Your task to perform on an android device: Go to eBay Image 0: 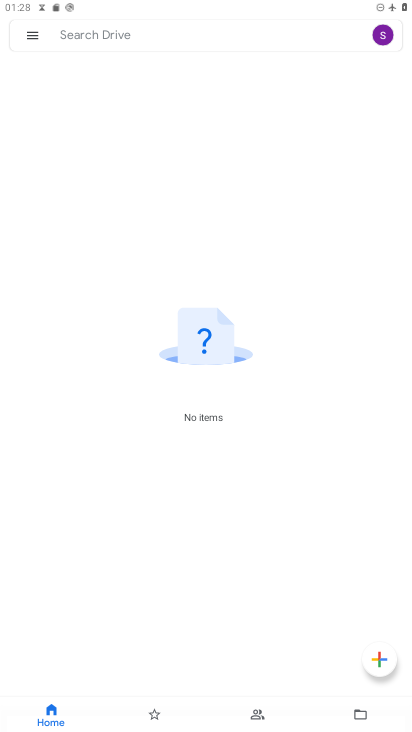
Step 0: press home button
Your task to perform on an android device: Go to eBay Image 1: 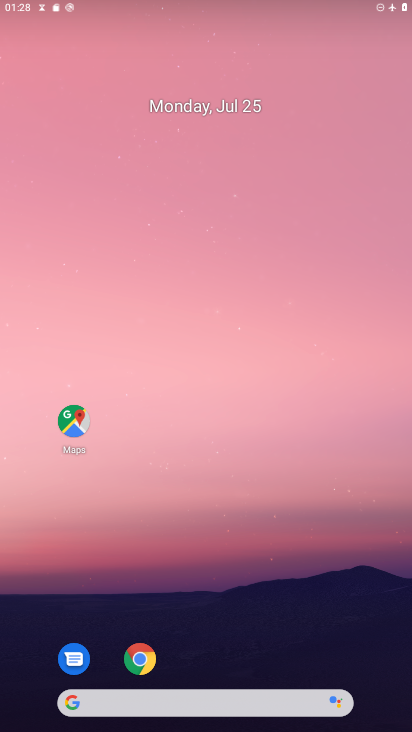
Step 1: drag from (223, 692) to (213, 328)
Your task to perform on an android device: Go to eBay Image 2: 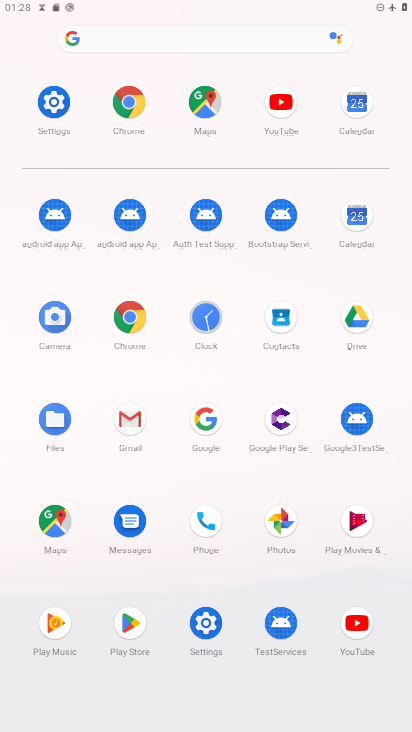
Step 2: click (124, 99)
Your task to perform on an android device: Go to eBay Image 3: 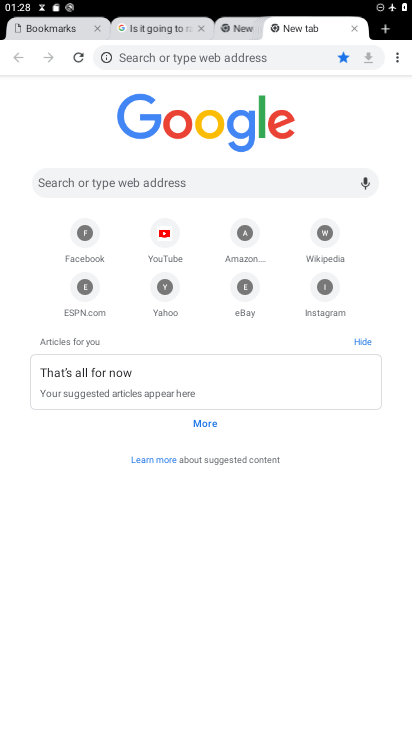
Step 3: click (249, 285)
Your task to perform on an android device: Go to eBay Image 4: 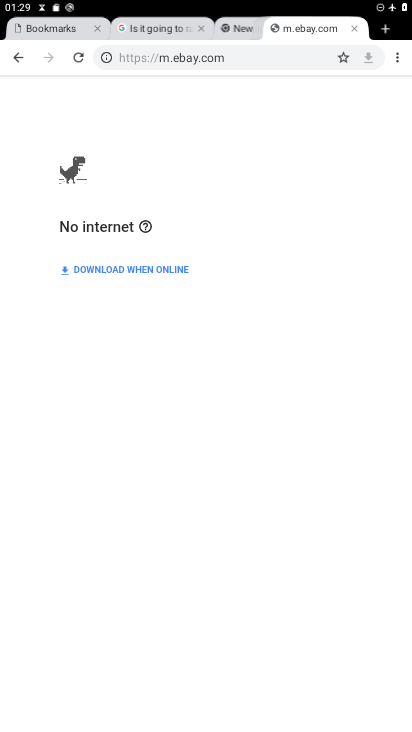
Step 4: task complete